Your task to perform on an android device: turn off sleep mode Image 0: 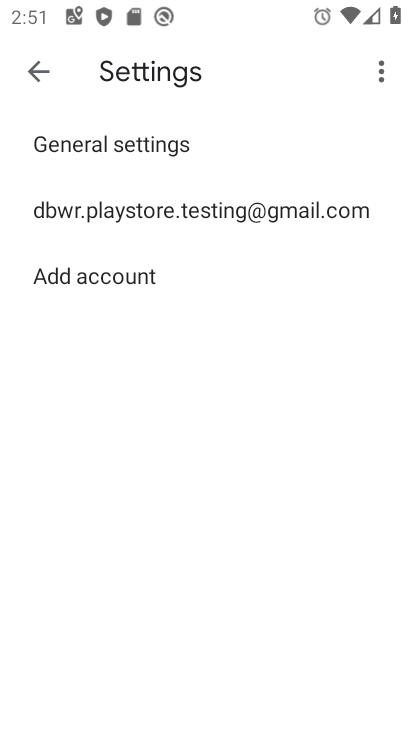
Step 0: press home button
Your task to perform on an android device: turn off sleep mode Image 1: 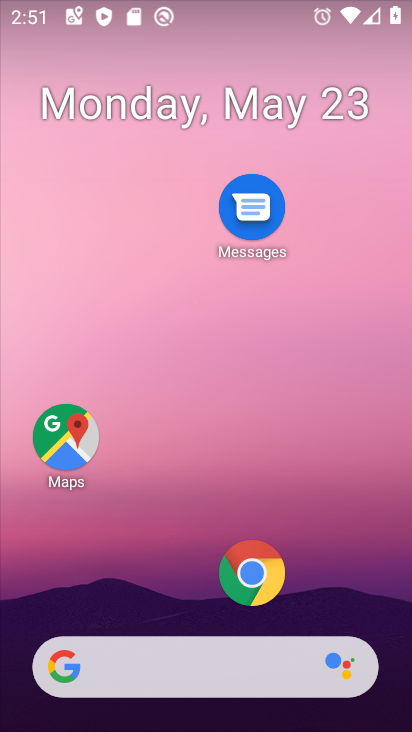
Step 1: drag from (337, 624) to (303, 38)
Your task to perform on an android device: turn off sleep mode Image 2: 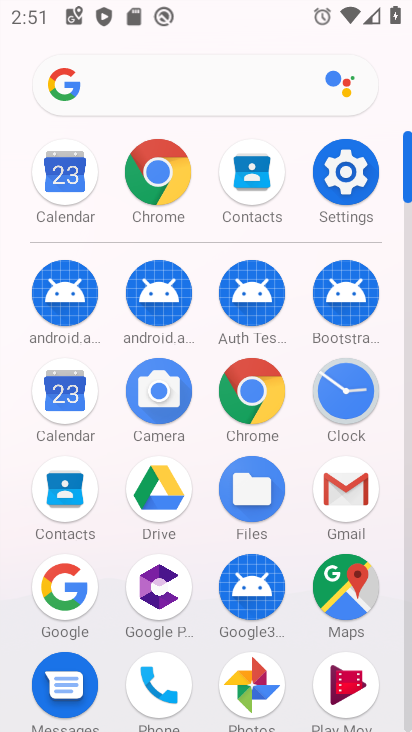
Step 2: click (355, 197)
Your task to perform on an android device: turn off sleep mode Image 3: 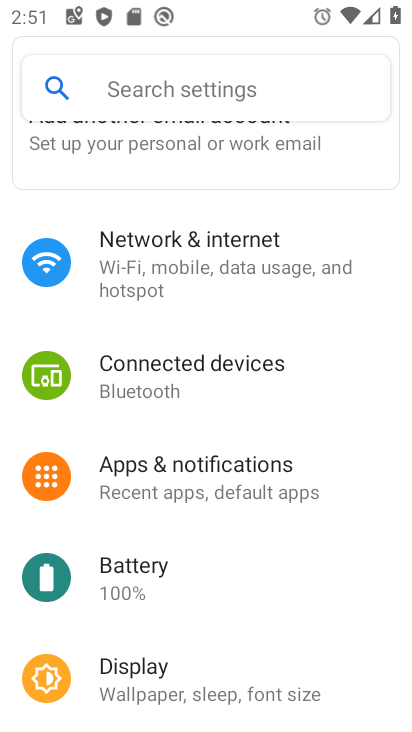
Step 3: drag from (283, 656) to (299, 233)
Your task to perform on an android device: turn off sleep mode Image 4: 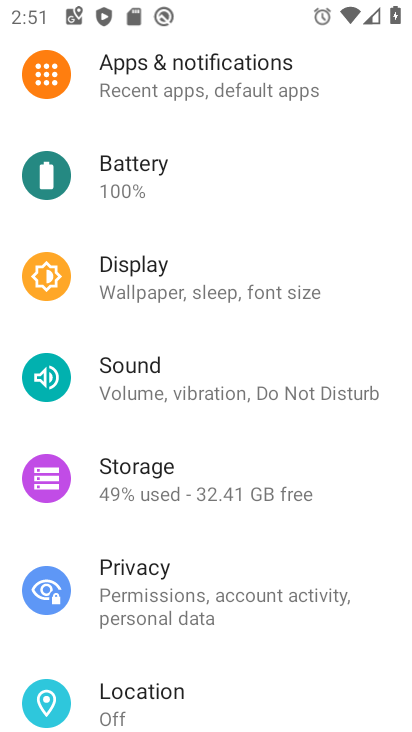
Step 4: click (238, 275)
Your task to perform on an android device: turn off sleep mode Image 5: 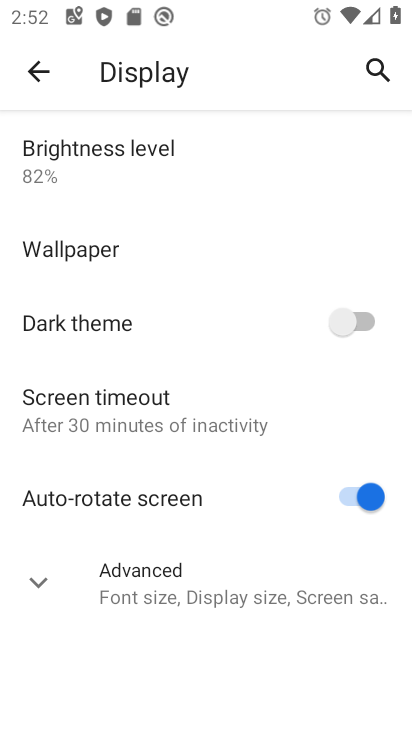
Step 5: task complete